Your task to perform on an android device: Open notification settings Image 0: 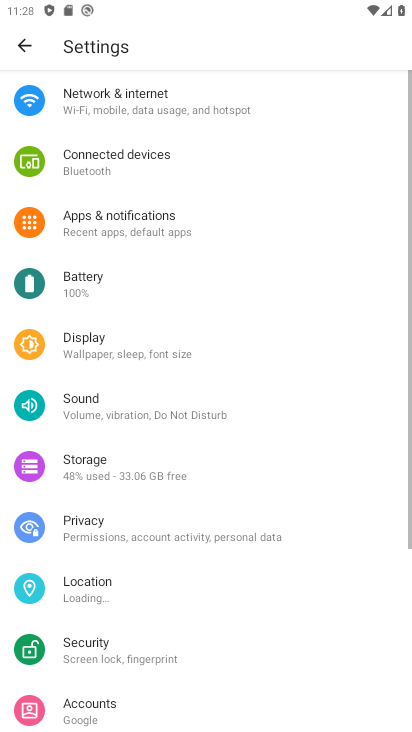
Step 0: click (95, 216)
Your task to perform on an android device: Open notification settings Image 1: 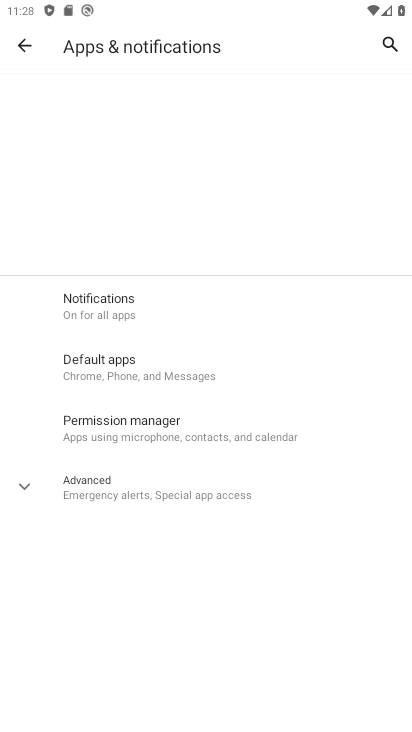
Step 1: task complete